Your task to perform on an android device: delete a single message in the gmail app Image 0: 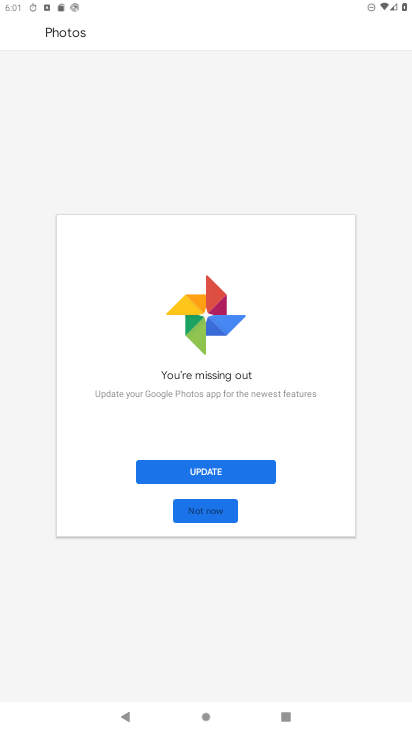
Step 0: press home button
Your task to perform on an android device: delete a single message in the gmail app Image 1: 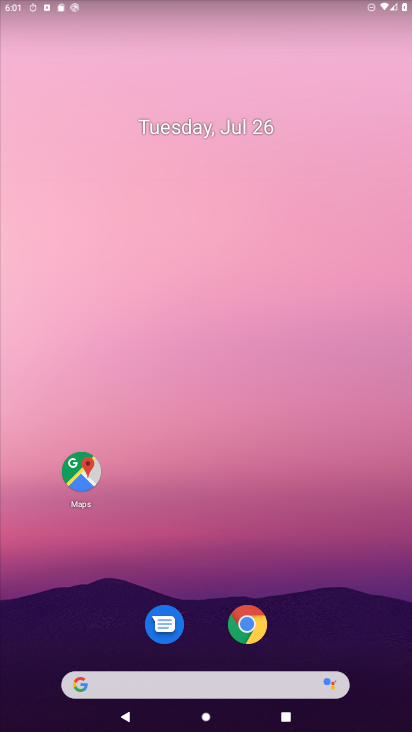
Step 1: drag from (286, 692) to (336, 6)
Your task to perform on an android device: delete a single message in the gmail app Image 2: 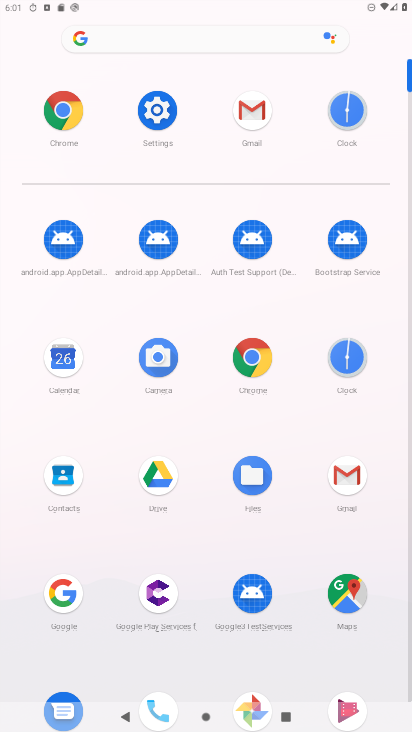
Step 2: click (352, 474)
Your task to perform on an android device: delete a single message in the gmail app Image 3: 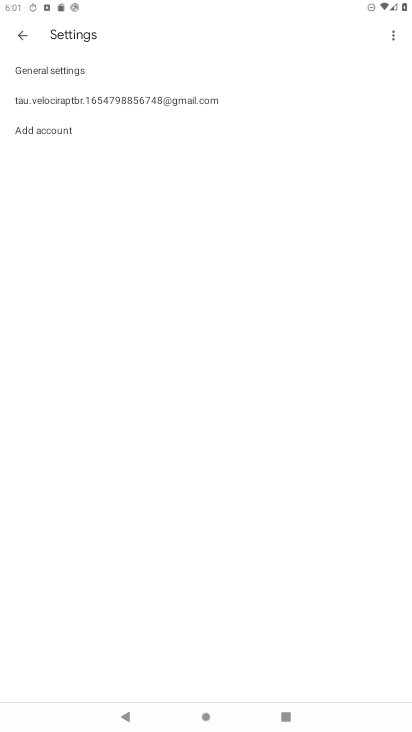
Step 3: press back button
Your task to perform on an android device: delete a single message in the gmail app Image 4: 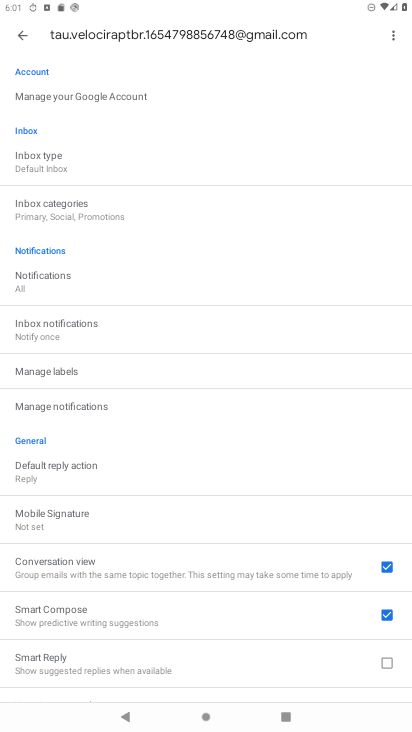
Step 4: press back button
Your task to perform on an android device: delete a single message in the gmail app Image 5: 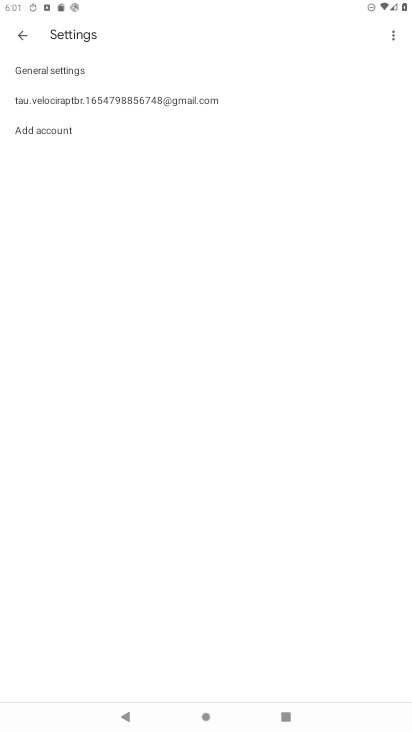
Step 5: press back button
Your task to perform on an android device: delete a single message in the gmail app Image 6: 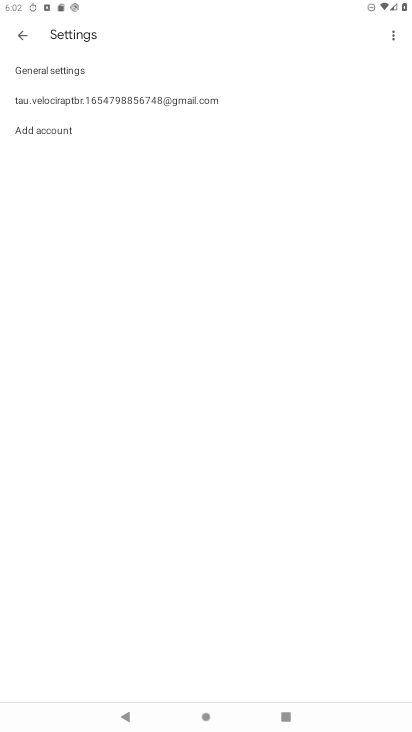
Step 6: press back button
Your task to perform on an android device: delete a single message in the gmail app Image 7: 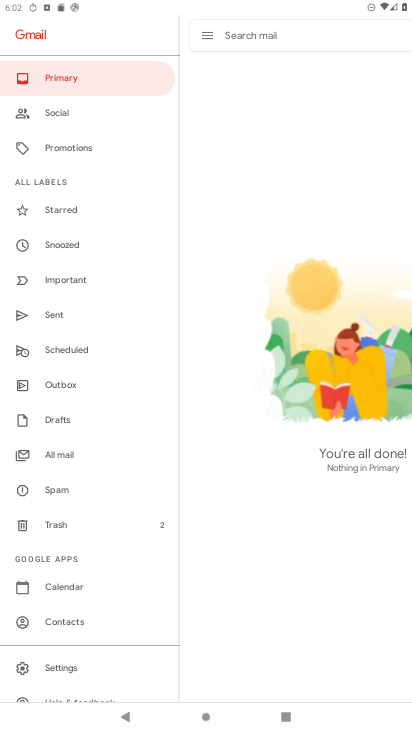
Step 7: click (64, 84)
Your task to perform on an android device: delete a single message in the gmail app Image 8: 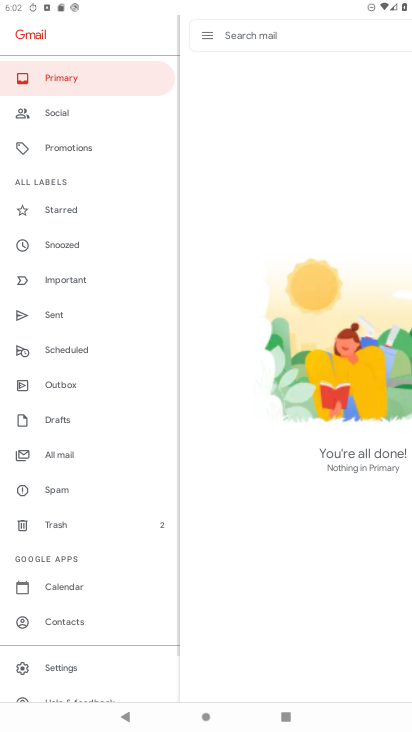
Step 8: task complete